Your task to perform on an android device: visit the assistant section in the google photos Image 0: 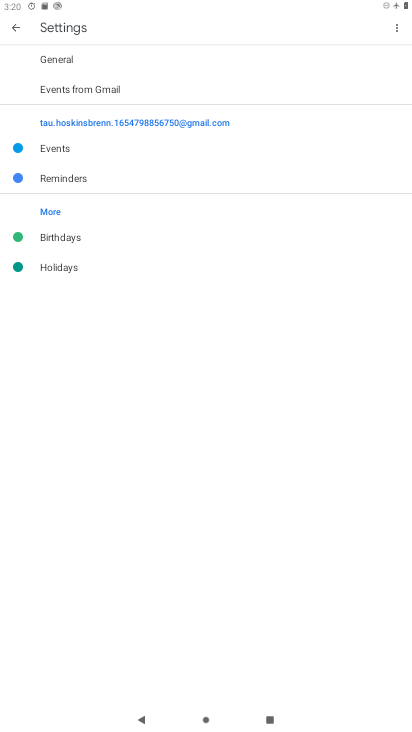
Step 0: press home button
Your task to perform on an android device: visit the assistant section in the google photos Image 1: 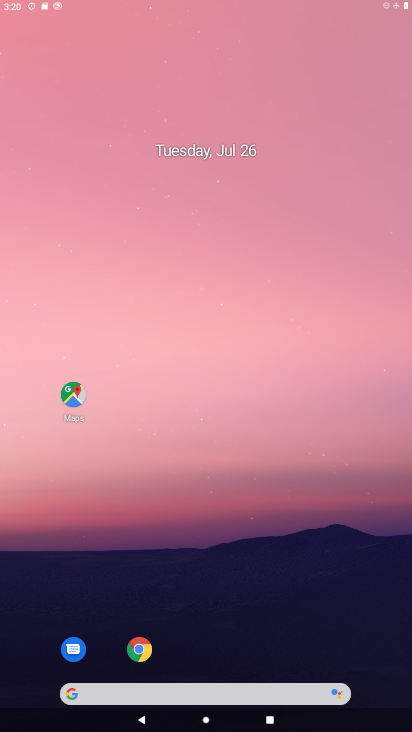
Step 1: drag from (376, 687) to (233, 27)
Your task to perform on an android device: visit the assistant section in the google photos Image 2: 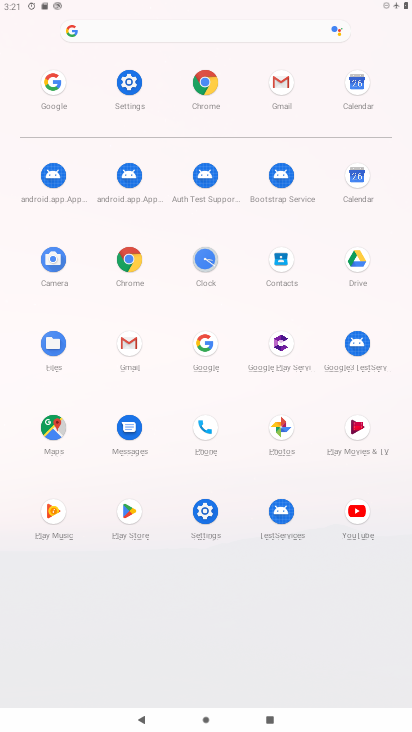
Step 2: click (278, 432)
Your task to perform on an android device: visit the assistant section in the google photos Image 3: 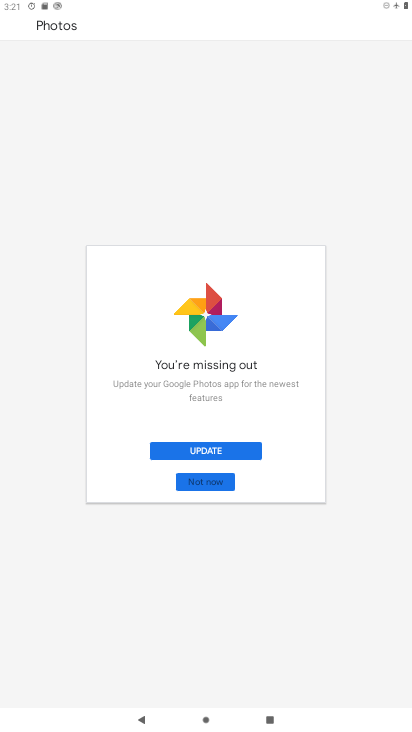
Step 3: click (305, 388)
Your task to perform on an android device: visit the assistant section in the google photos Image 4: 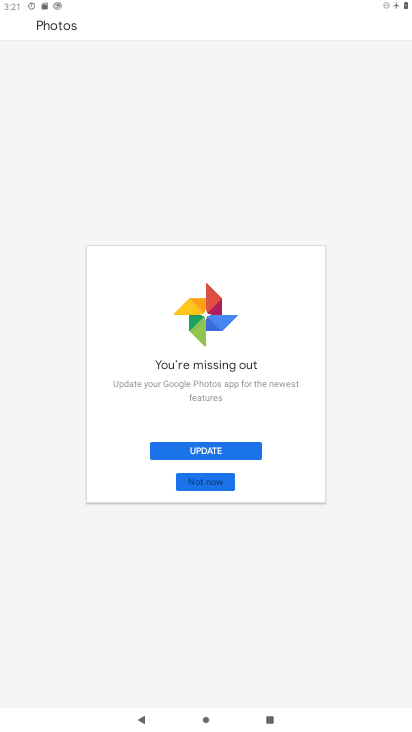
Step 4: click (198, 447)
Your task to perform on an android device: visit the assistant section in the google photos Image 5: 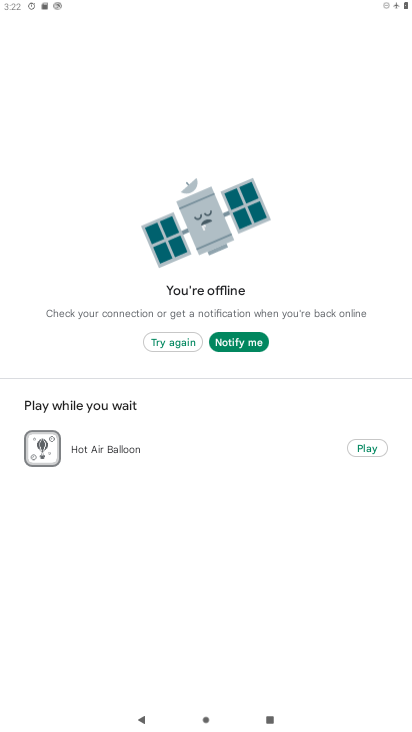
Step 5: task complete